Your task to perform on an android device: Open notification settings Image 0: 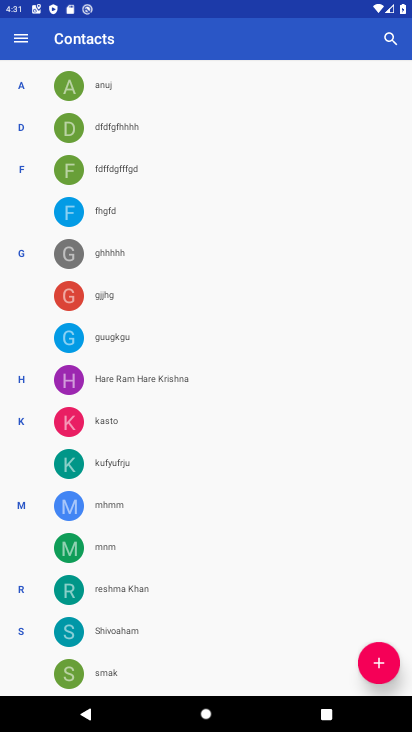
Step 0: press home button
Your task to perform on an android device: Open notification settings Image 1: 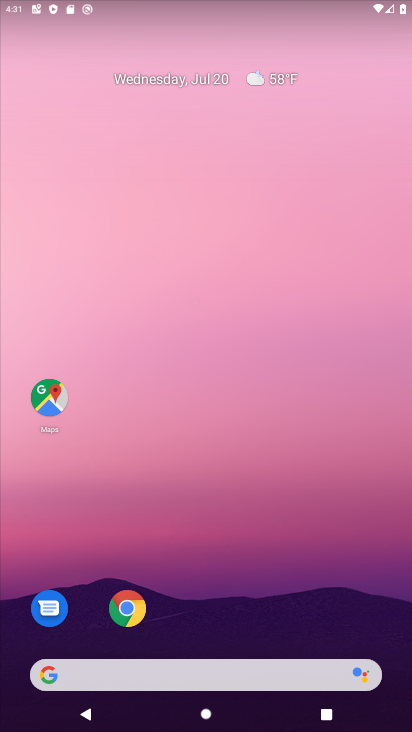
Step 1: drag from (234, 634) to (206, 5)
Your task to perform on an android device: Open notification settings Image 2: 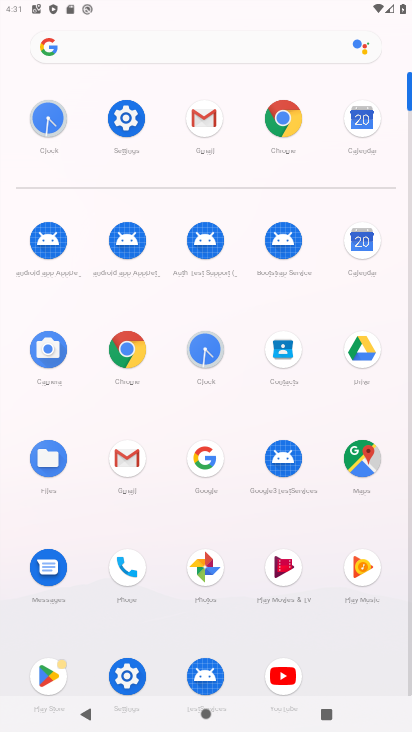
Step 2: click (131, 665)
Your task to perform on an android device: Open notification settings Image 3: 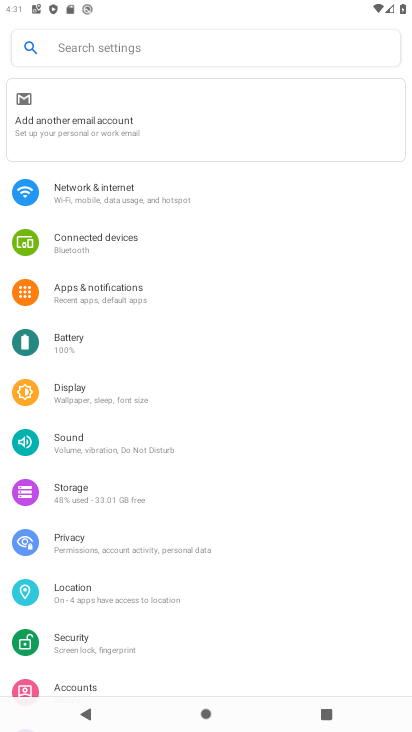
Step 3: click (81, 306)
Your task to perform on an android device: Open notification settings Image 4: 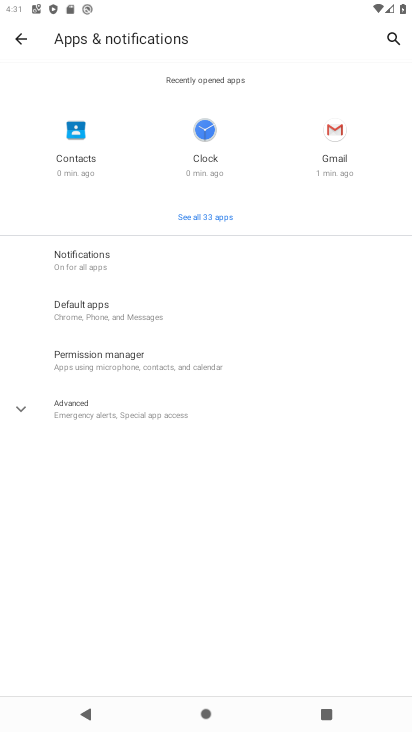
Step 4: click (90, 273)
Your task to perform on an android device: Open notification settings Image 5: 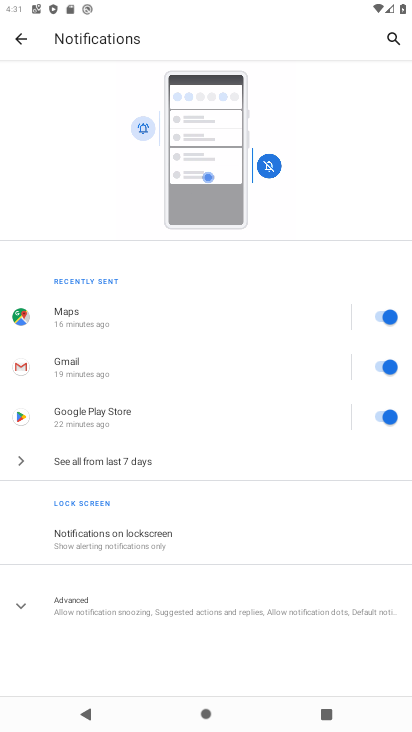
Step 5: task complete